Your task to perform on an android device: Open the calendar app, open the side menu, and click the "Day" option Image 0: 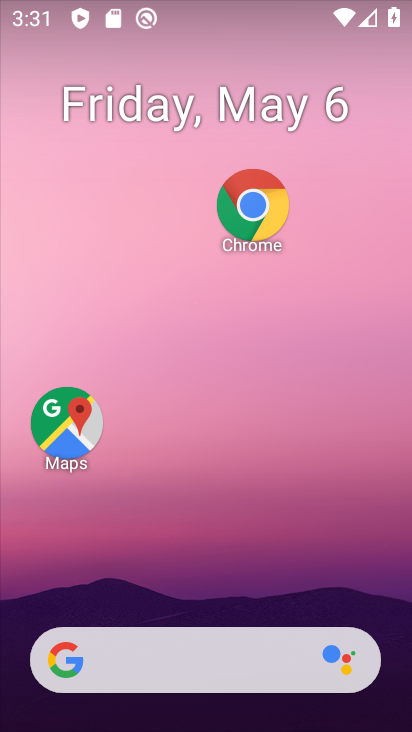
Step 0: click (211, 670)
Your task to perform on an android device: Open the calendar app, open the side menu, and click the "Day" option Image 1: 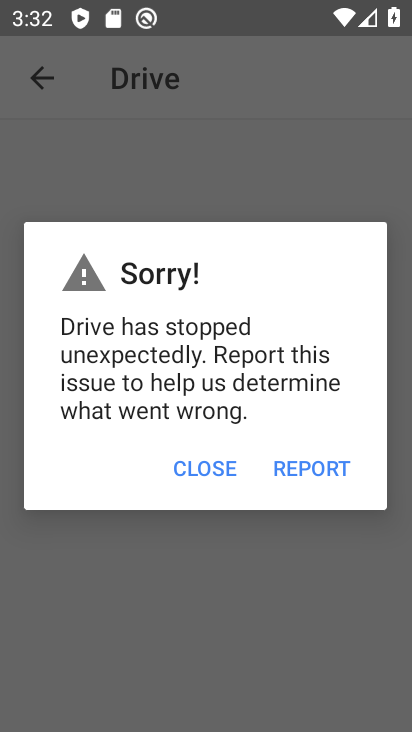
Step 1: press home button
Your task to perform on an android device: Open the calendar app, open the side menu, and click the "Day" option Image 2: 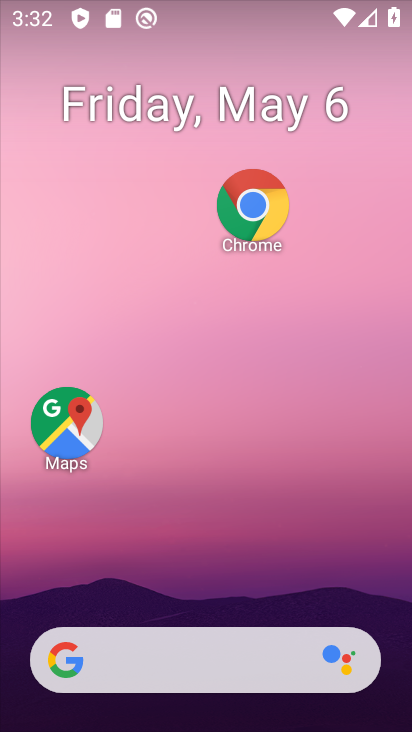
Step 2: drag from (219, 612) to (171, 9)
Your task to perform on an android device: Open the calendar app, open the side menu, and click the "Day" option Image 3: 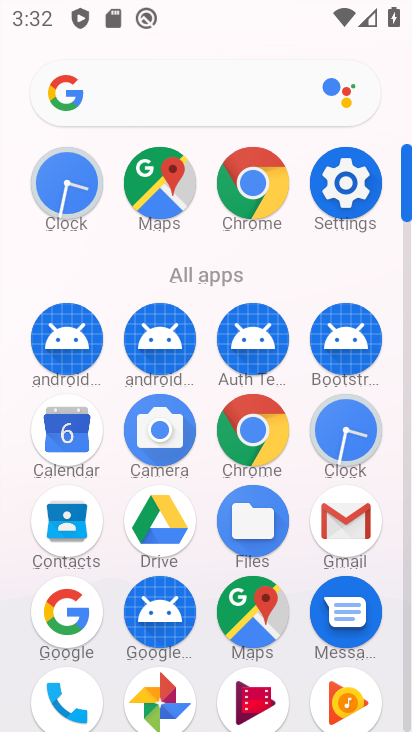
Step 3: click (65, 436)
Your task to perform on an android device: Open the calendar app, open the side menu, and click the "Day" option Image 4: 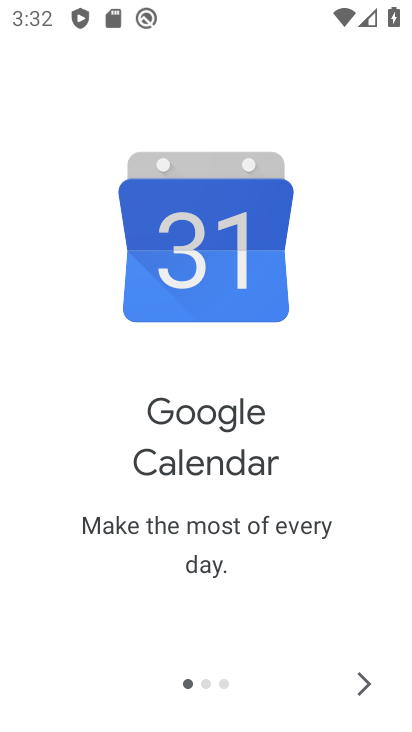
Step 4: click (375, 683)
Your task to perform on an android device: Open the calendar app, open the side menu, and click the "Day" option Image 5: 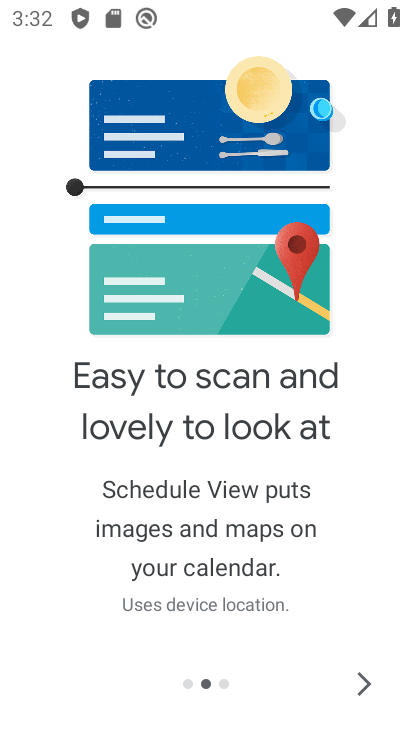
Step 5: click (359, 676)
Your task to perform on an android device: Open the calendar app, open the side menu, and click the "Day" option Image 6: 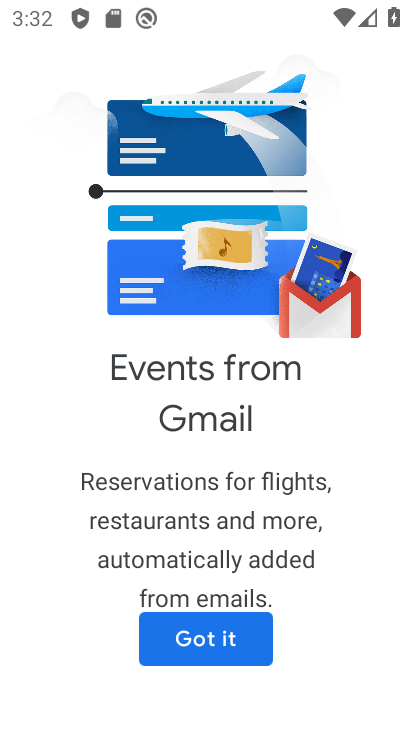
Step 6: click (224, 659)
Your task to perform on an android device: Open the calendar app, open the side menu, and click the "Day" option Image 7: 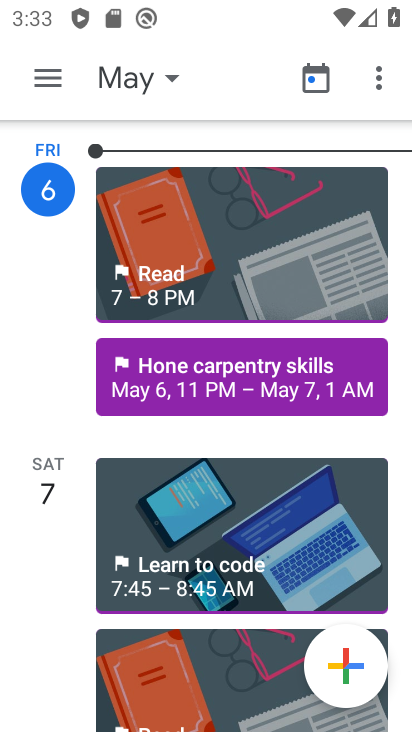
Step 7: click (47, 76)
Your task to perform on an android device: Open the calendar app, open the side menu, and click the "Day" option Image 8: 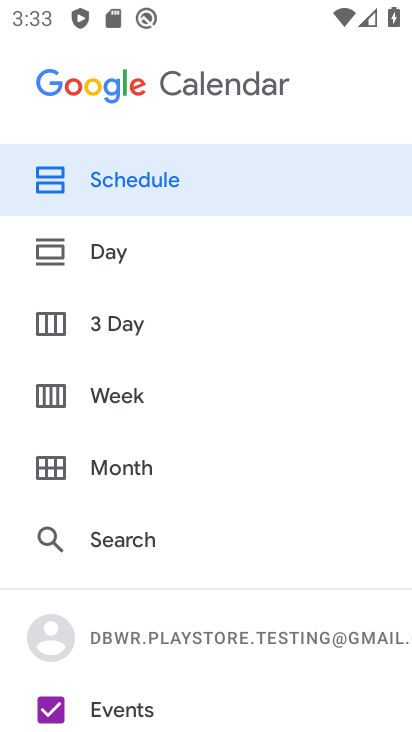
Step 8: click (85, 242)
Your task to perform on an android device: Open the calendar app, open the side menu, and click the "Day" option Image 9: 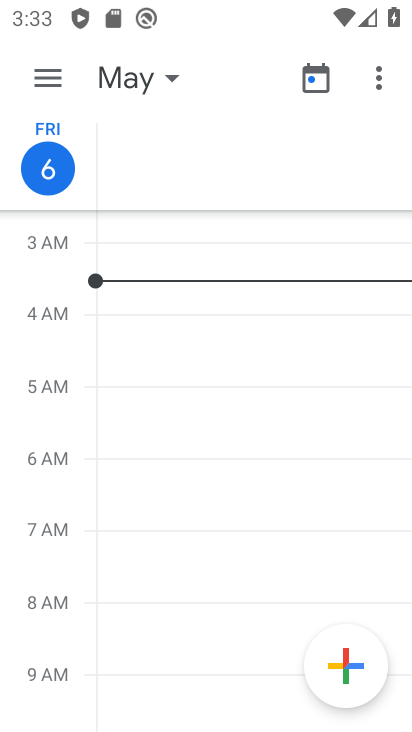
Step 9: task complete